Your task to perform on an android device: turn pop-ups on in chrome Image 0: 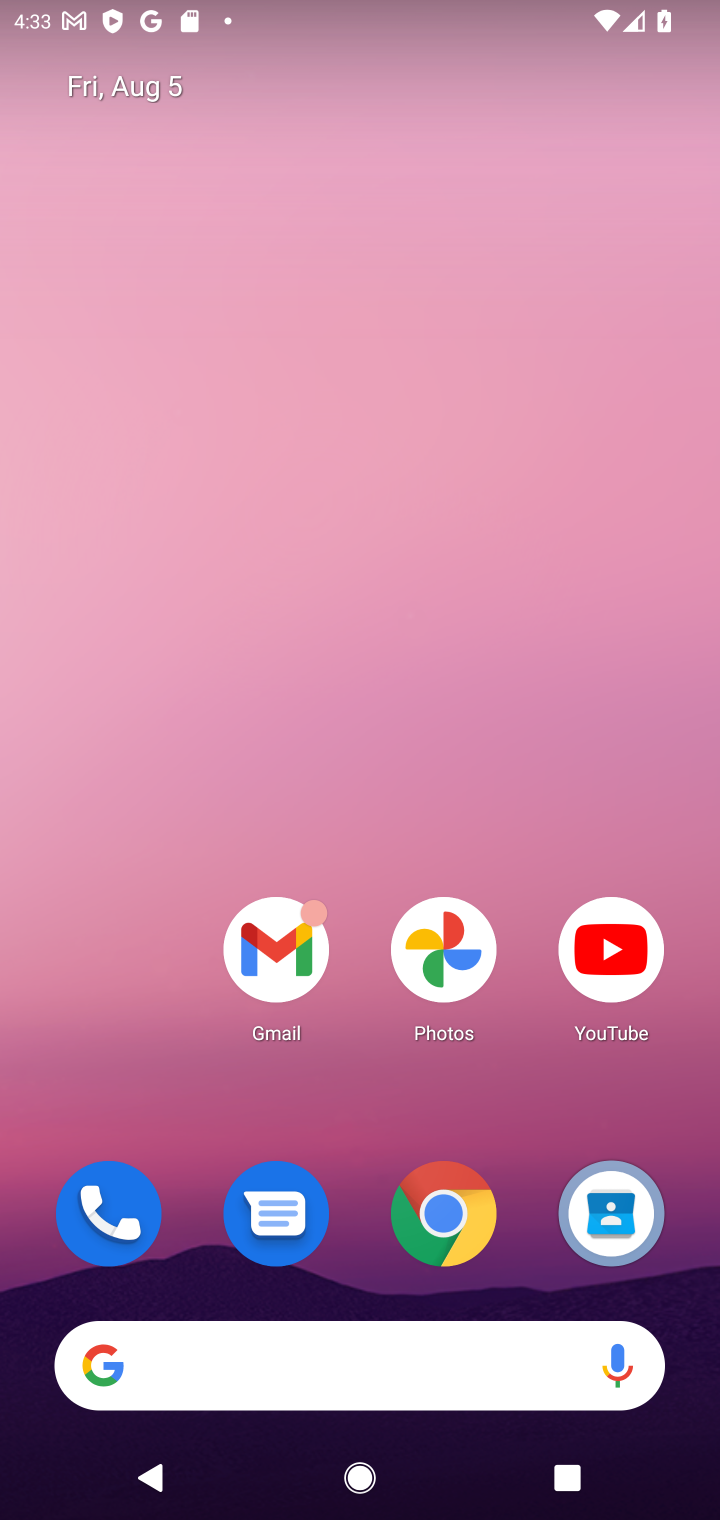
Step 0: task complete